Your task to perform on an android device: turn on data saver in the chrome app Image 0: 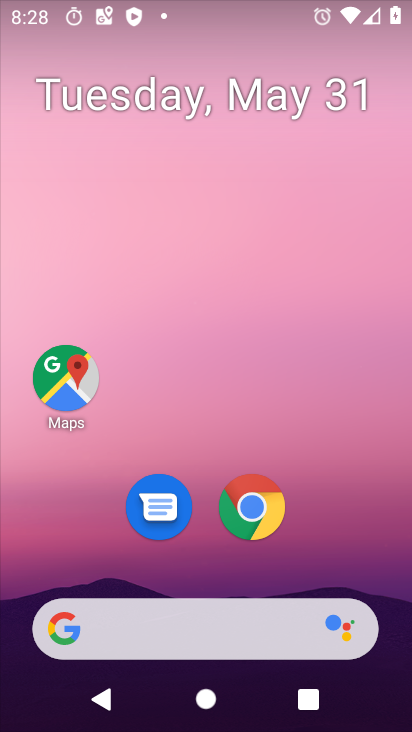
Step 0: click (239, 527)
Your task to perform on an android device: turn on data saver in the chrome app Image 1: 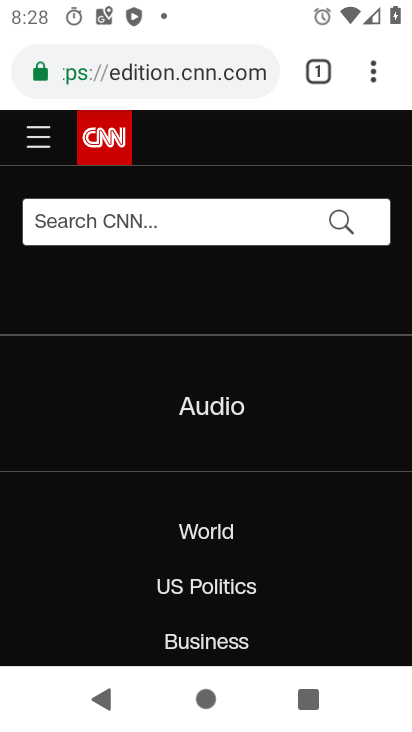
Step 1: click (372, 73)
Your task to perform on an android device: turn on data saver in the chrome app Image 2: 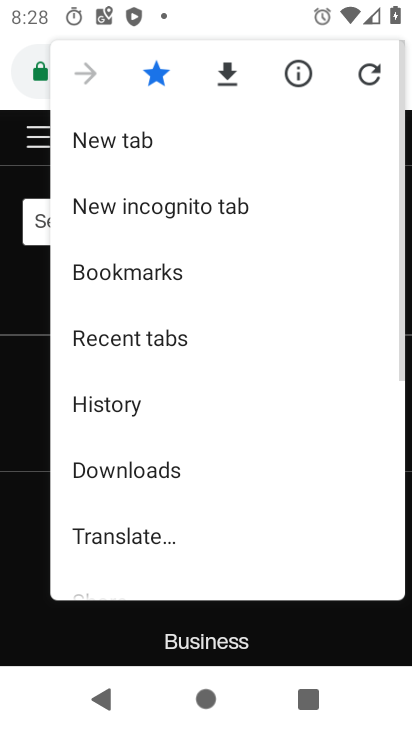
Step 2: drag from (261, 539) to (246, 73)
Your task to perform on an android device: turn on data saver in the chrome app Image 3: 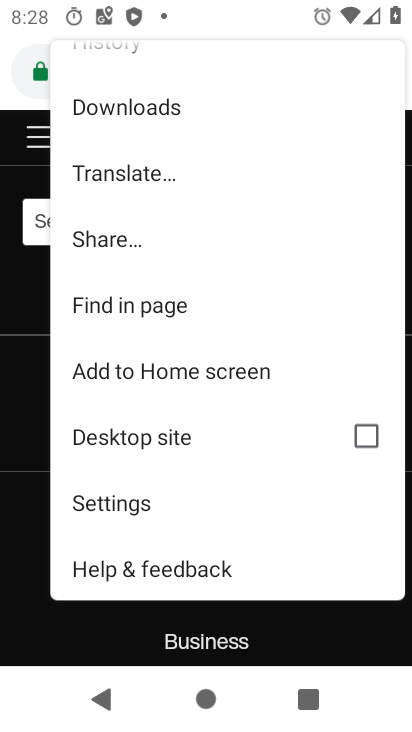
Step 3: click (115, 499)
Your task to perform on an android device: turn on data saver in the chrome app Image 4: 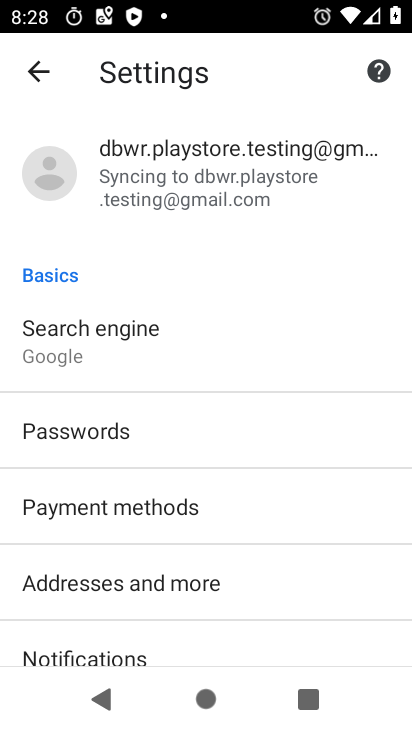
Step 4: drag from (243, 523) to (249, 52)
Your task to perform on an android device: turn on data saver in the chrome app Image 5: 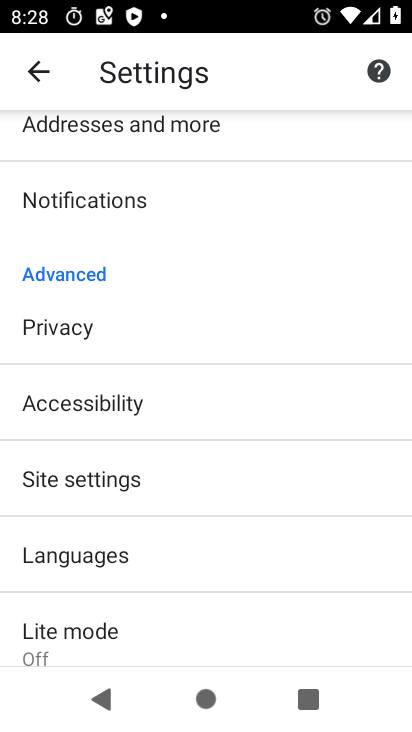
Step 5: drag from (186, 579) to (192, 341)
Your task to perform on an android device: turn on data saver in the chrome app Image 6: 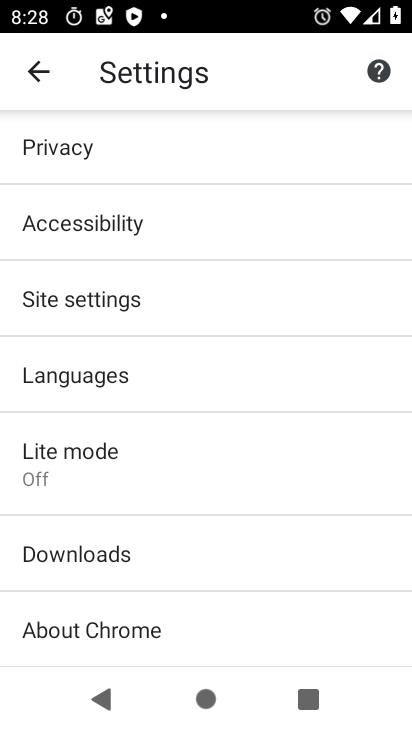
Step 6: click (48, 456)
Your task to perform on an android device: turn on data saver in the chrome app Image 7: 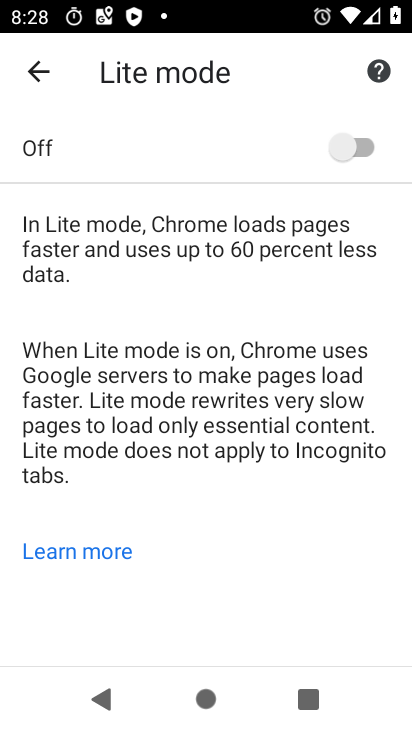
Step 7: click (355, 154)
Your task to perform on an android device: turn on data saver in the chrome app Image 8: 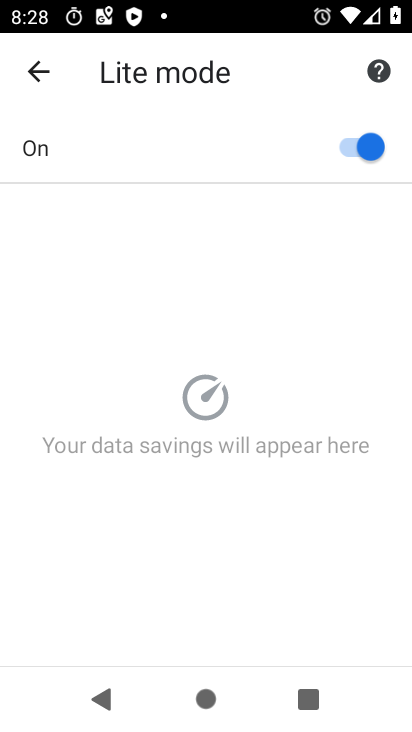
Step 8: task complete